Your task to perform on an android device: Go to wifi settings Image 0: 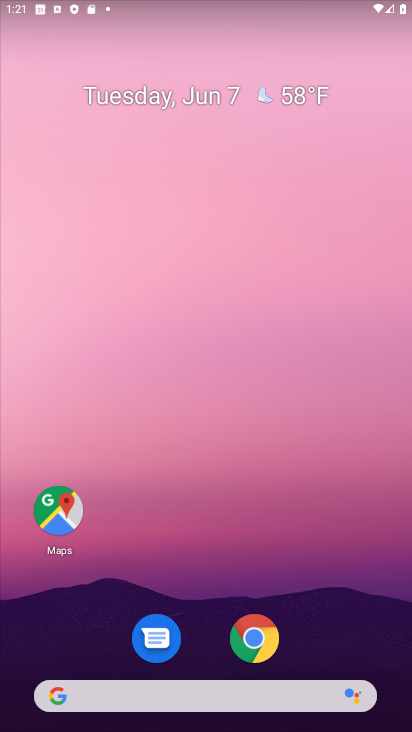
Step 0: drag from (215, 660) to (270, 263)
Your task to perform on an android device: Go to wifi settings Image 1: 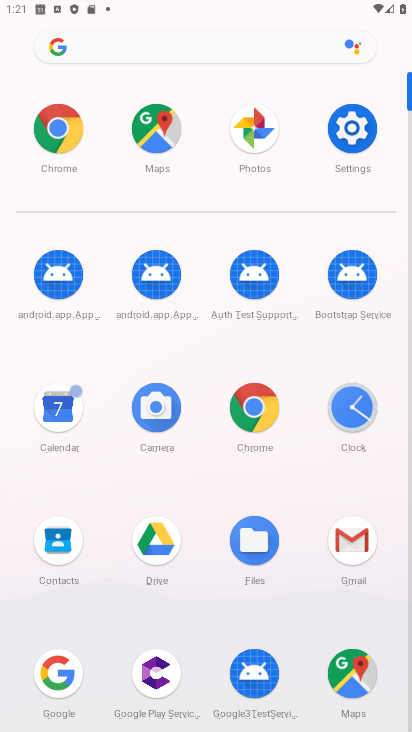
Step 1: click (355, 133)
Your task to perform on an android device: Go to wifi settings Image 2: 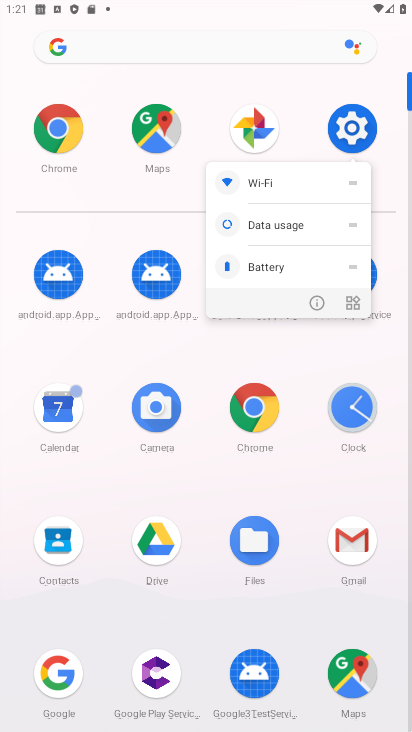
Step 2: click (317, 303)
Your task to perform on an android device: Go to wifi settings Image 3: 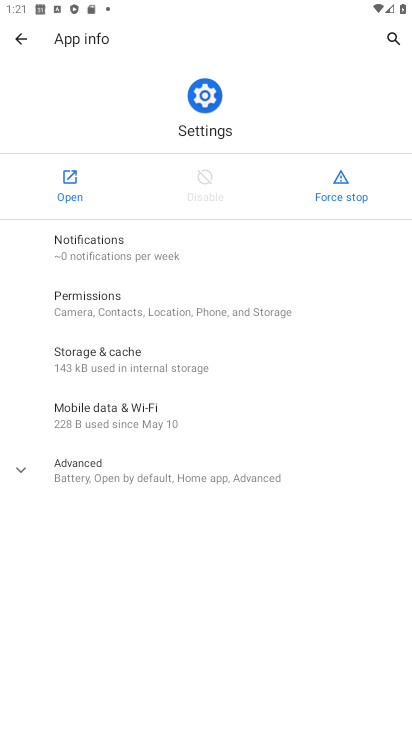
Step 3: click (64, 184)
Your task to perform on an android device: Go to wifi settings Image 4: 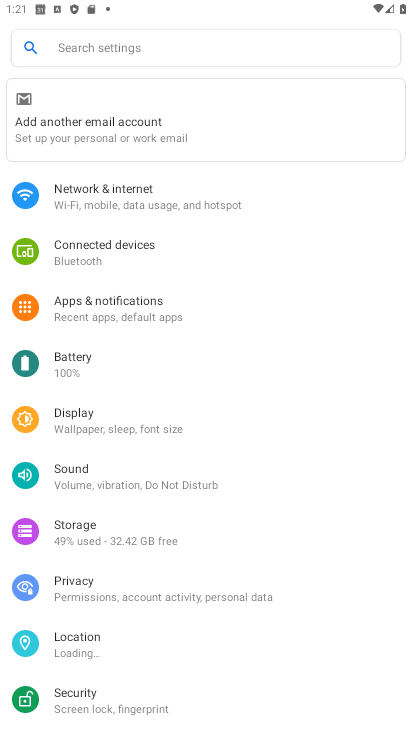
Step 4: click (105, 191)
Your task to perform on an android device: Go to wifi settings Image 5: 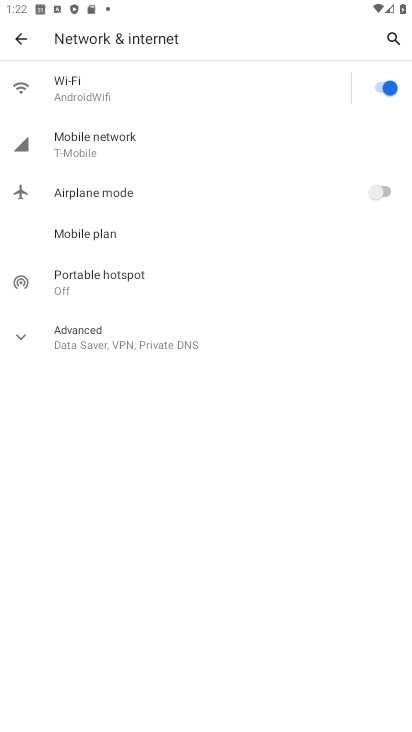
Step 5: task complete